Your task to perform on an android device: change the clock style Image 0: 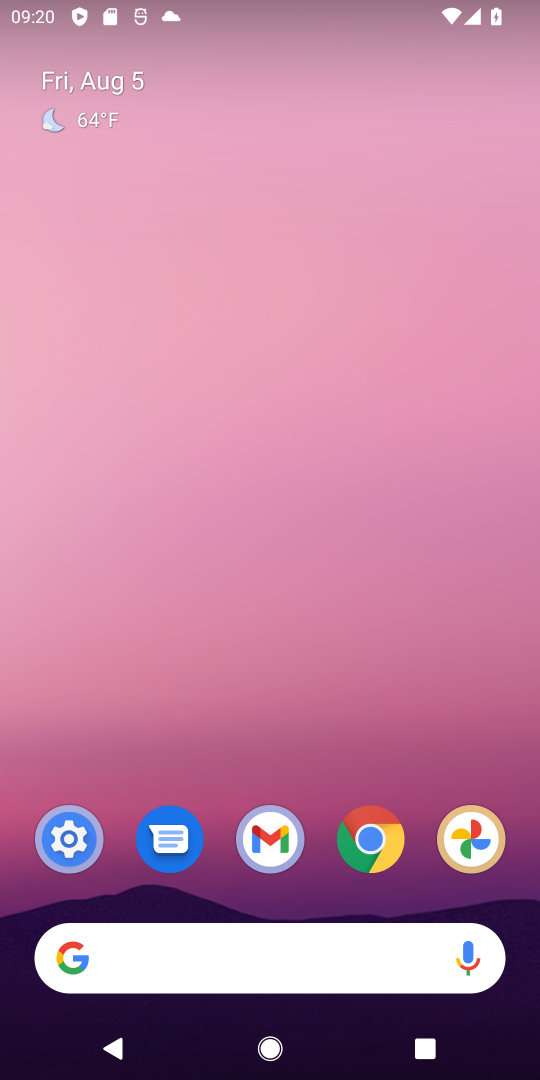
Step 0: drag from (340, 839) to (280, 197)
Your task to perform on an android device: change the clock style Image 1: 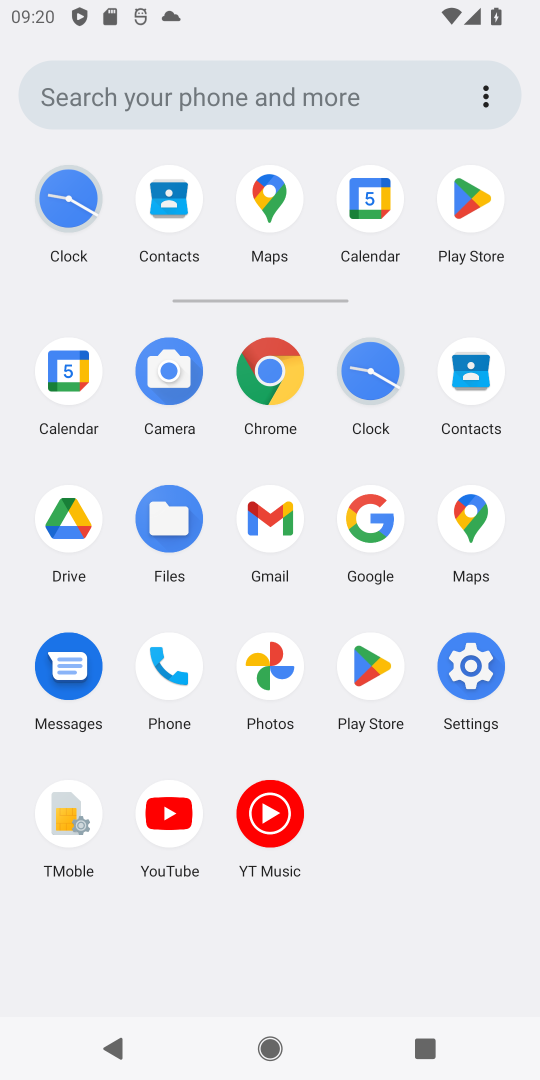
Step 1: click (366, 381)
Your task to perform on an android device: change the clock style Image 2: 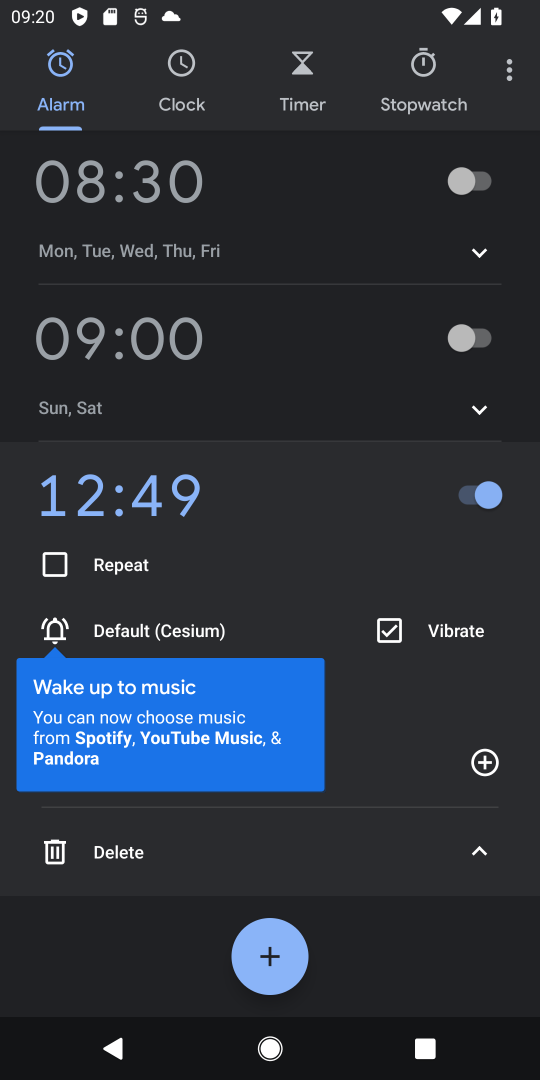
Step 2: click (514, 75)
Your task to perform on an android device: change the clock style Image 3: 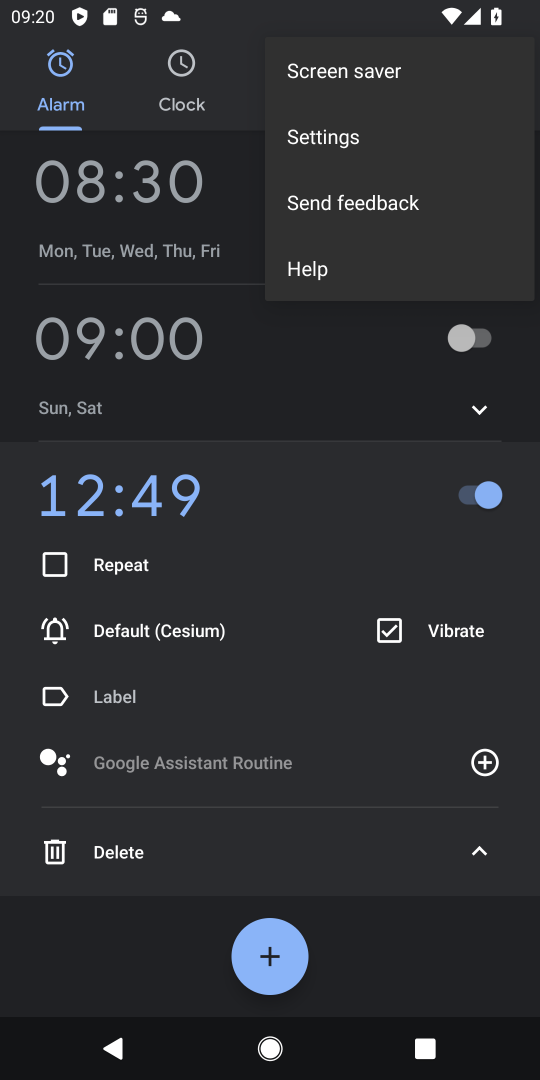
Step 3: click (337, 132)
Your task to perform on an android device: change the clock style Image 4: 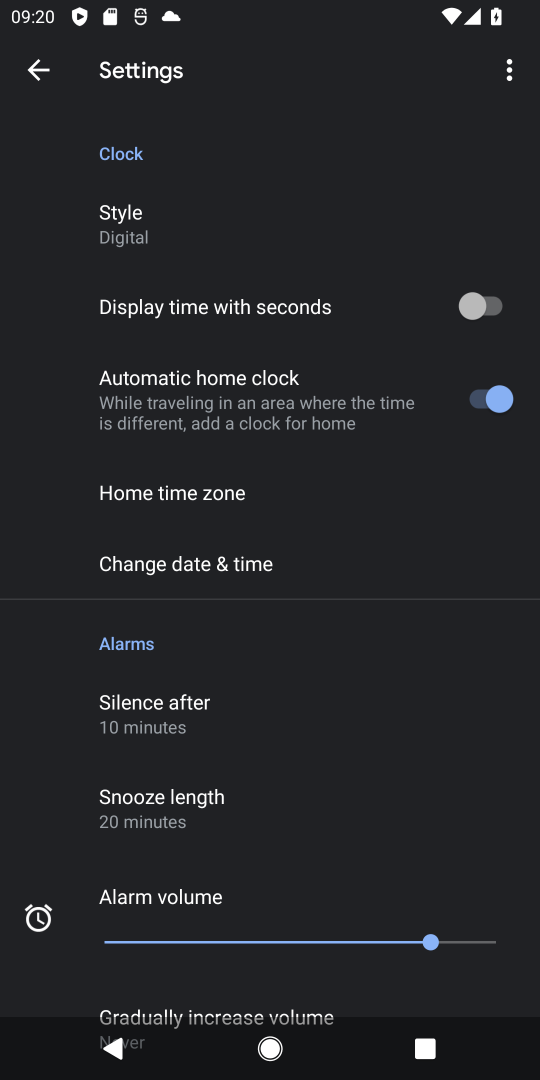
Step 4: click (132, 236)
Your task to perform on an android device: change the clock style Image 5: 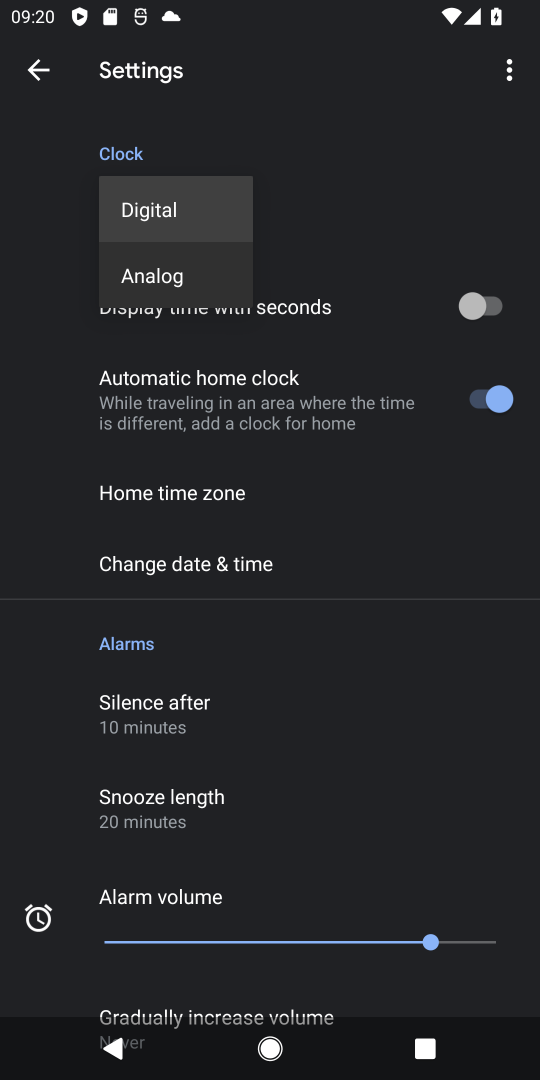
Step 5: click (172, 277)
Your task to perform on an android device: change the clock style Image 6: 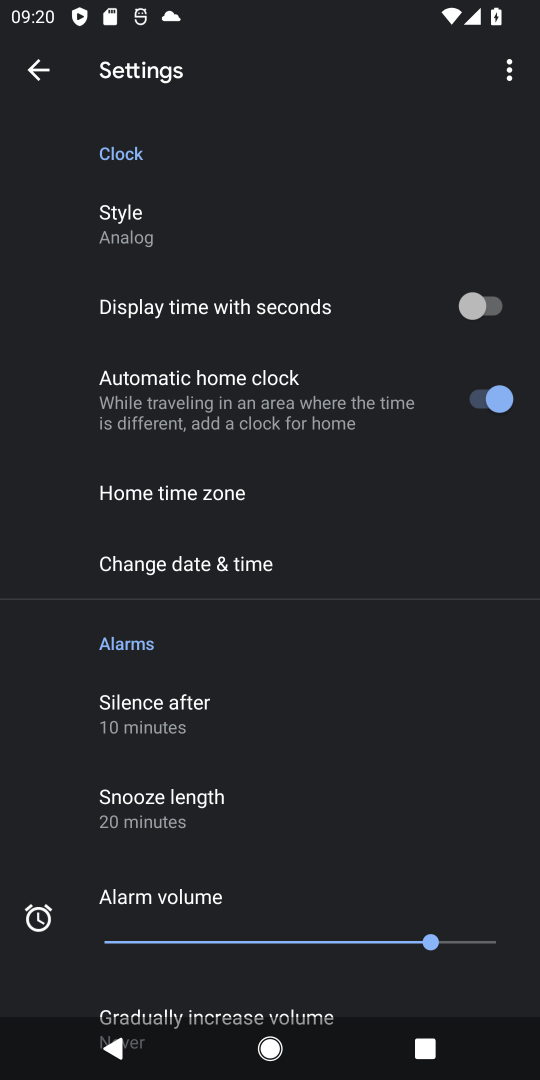
Step 6: task complete